Your task to perform on an android device: Go to Yahoo.com Image 0: 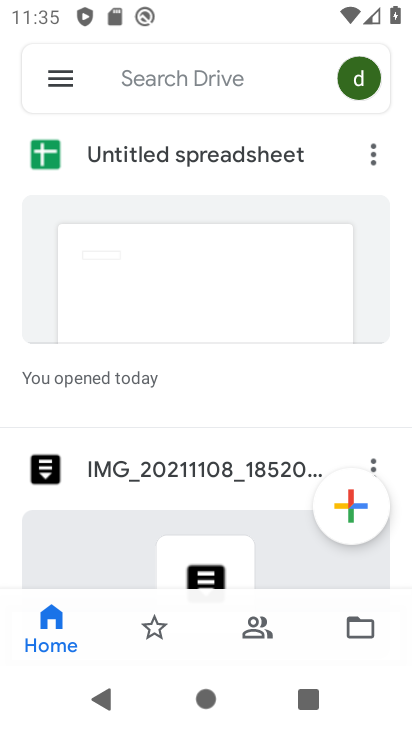
Step 0: press home button
Your task to perform on an android device: Go to Yahoo.com Image 1: 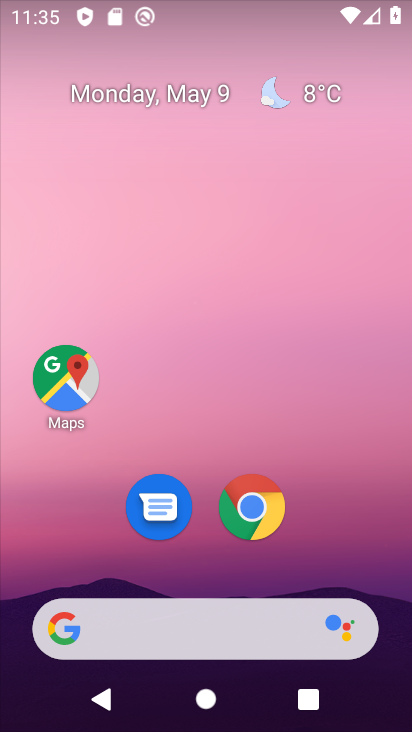
Step 1: click (239, 502)
Your task to perform on an android device: Go to Yahoo.com Image 2: 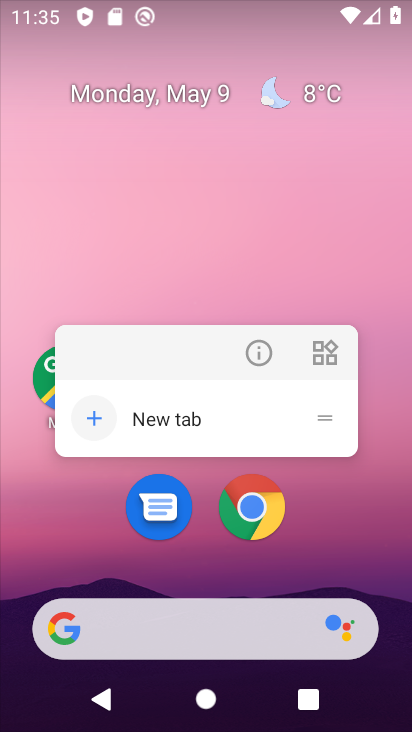
Step 2: click (257, 520)
Your task to perform on an android device: Go to Yahoo.com Image 3: 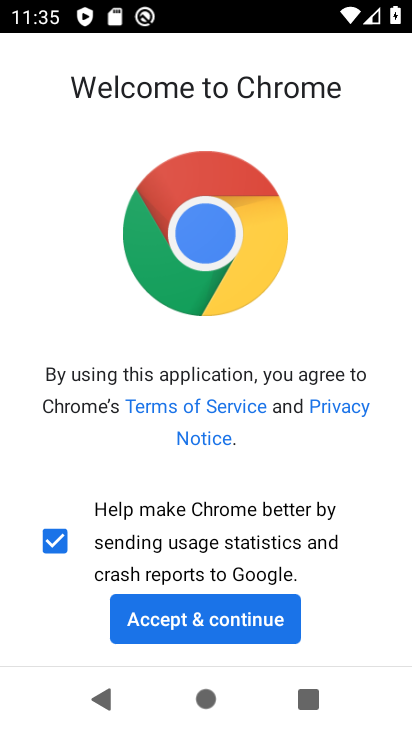
Step 3: click (237, 638)
Your task to perform on an android device: Go to Yahoo.com Image 4: 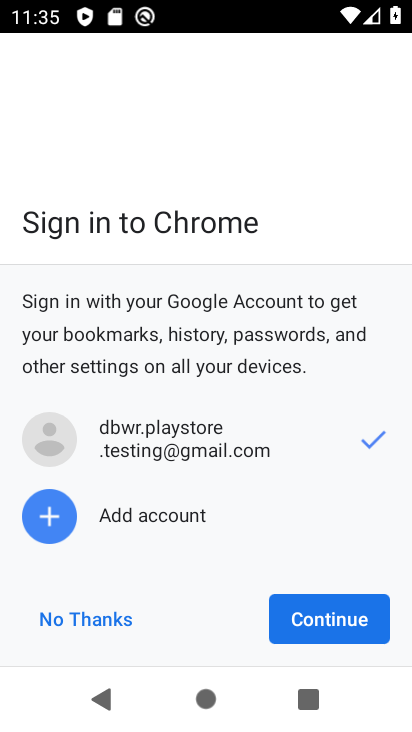
Step 4: click (343, 611)
Your task to perform on an android device: Go to Yahoo.com Image 5: 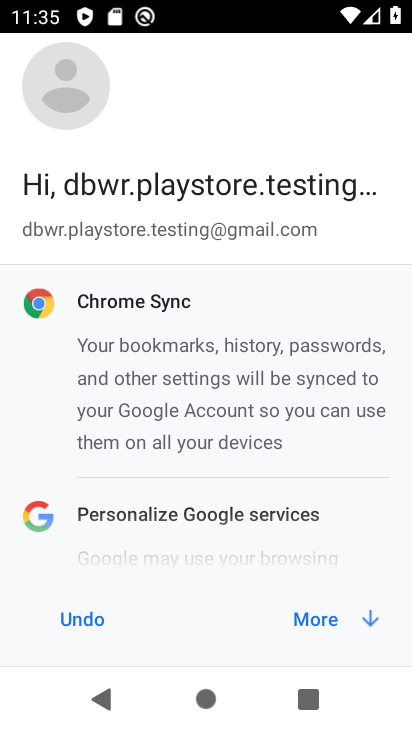
Step 5: click (343, 623)
Your task to perform on an android device: Go to Yahoo.com Image 6: 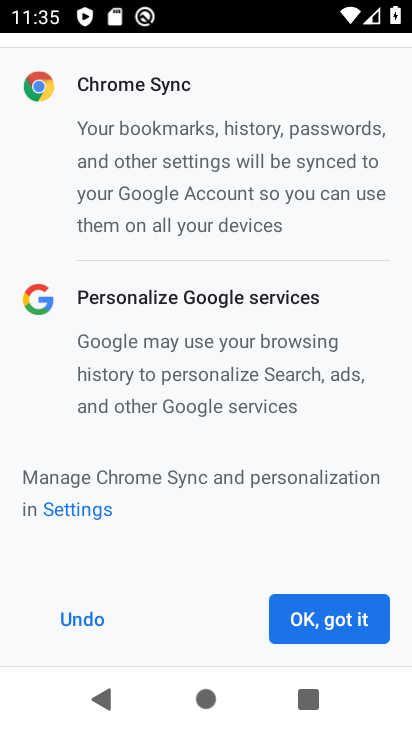
Step 6: click (338, 631)
Your task to perform on an android device: Go to Yahoo.com Image 7: 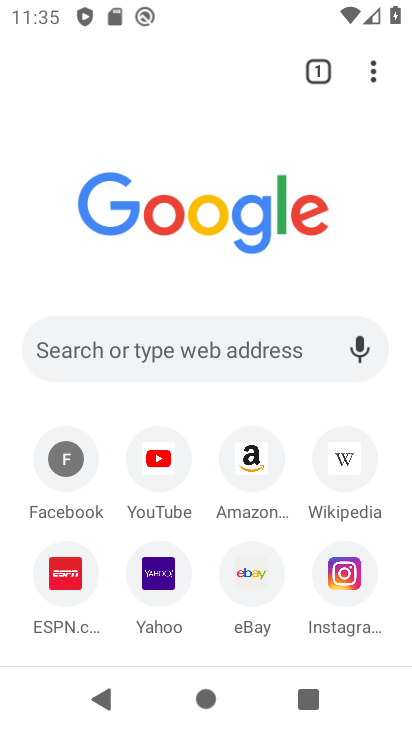
Step 7: click (150, 580)
Your task to perform on an android device: Go to Yahoo.com Image 8: 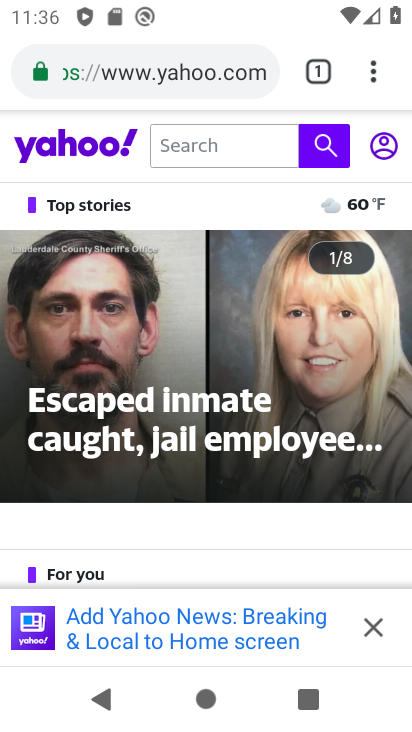
Step 8: task complete